Your task to perform on an android device: clear history in the chrome app Image 0: 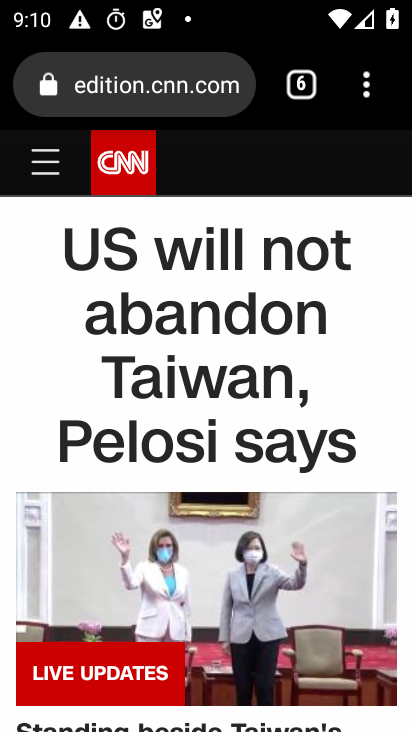
Step 0: press home button
Your task to perform on an android device: clear history in the chrome app Image 1: 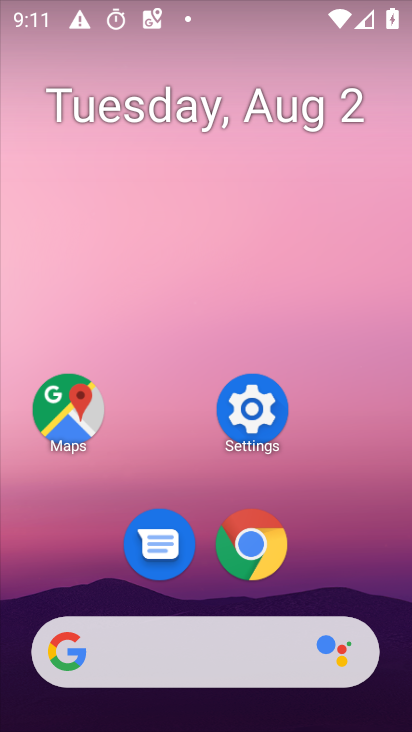
Step 1: click (248, 547)
Your task to perform on an android device: clear history in the chrome app Image 2: 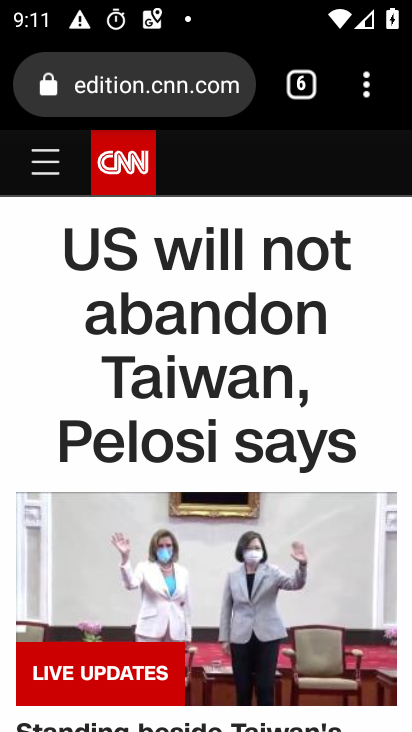
Step 2: drag from (368, 90) to (120, 477)
Your task to perform on an android device: clear history in the chrome app Image 3: 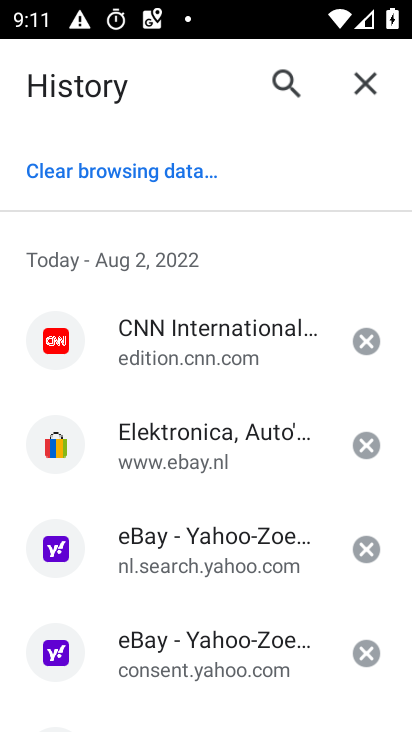
Step 3: click (133, 176)
Your task to perform on an android device: clear history in the chrome app Image 4: 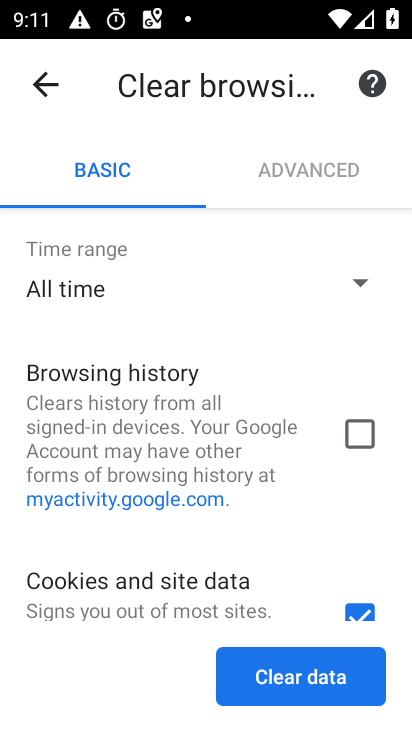
Step 4: click (367, 433)
Your task to perform on an android device: clear history in the chrome app Image 5: 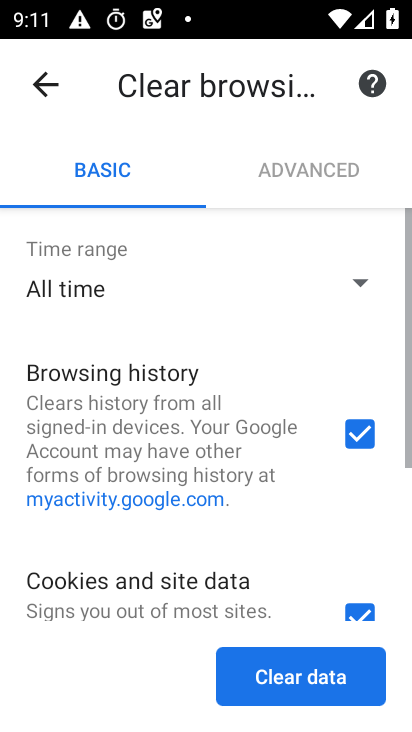
Step 5: drag from (170, 543) to (304, 202)
Your task to perform on an android device: clear history in the chrome app Image 6: 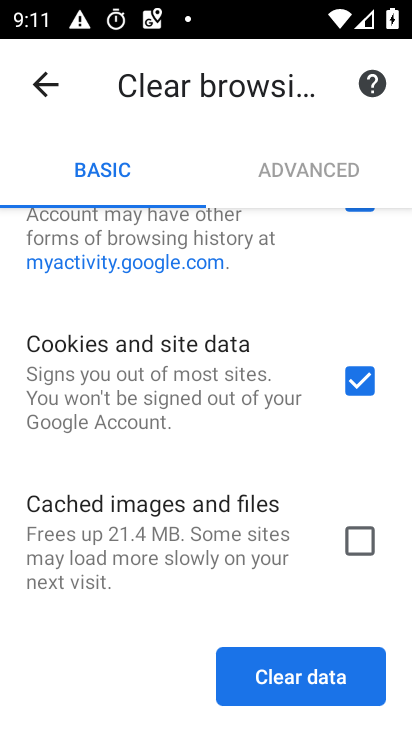
Step 6: click (360, 539)
Your task to perform on an android device: clear history in the chrome app Image 7: 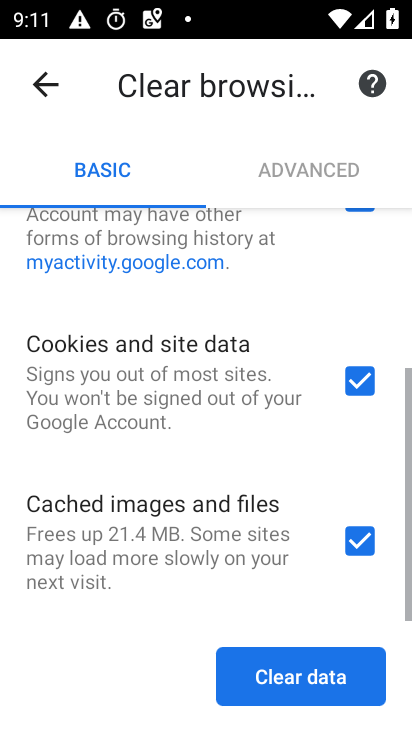
Step 7: click (327, 686)
Your task to perform on an android device: clear history in the chrome app Image 8: 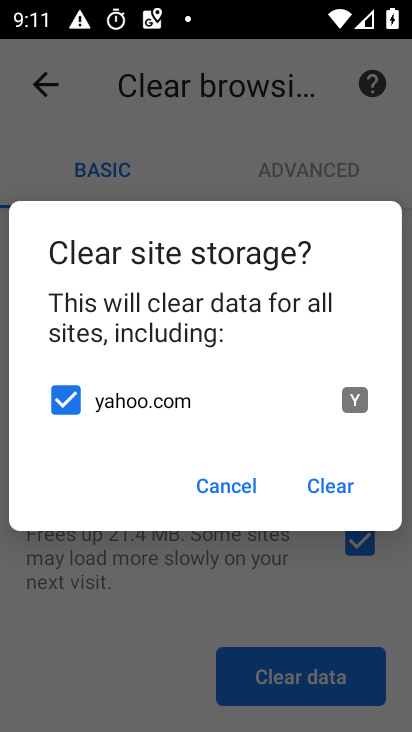
Step 8: click (339, 489)
Your task to perform on an android device: clear history in the chrome app Image 9: 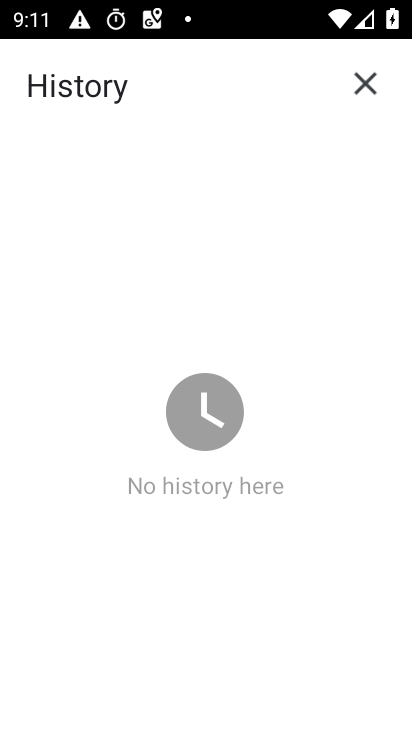
Step 9: task complete